Your task to perform on an android device: turn on airplane mode Image 0: 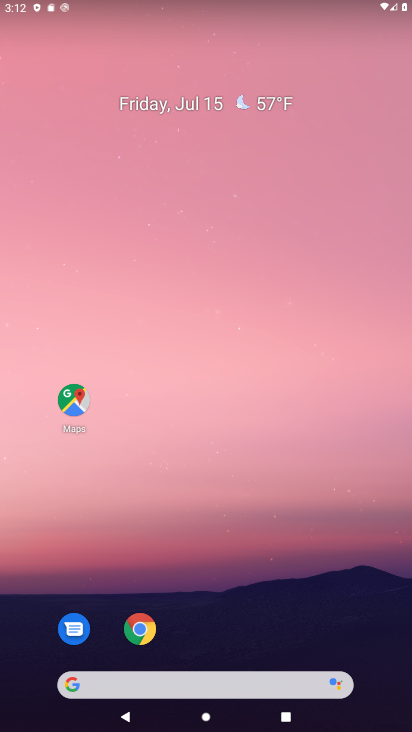
Step 0: drag from (319, 709) to (170, 76)
Your task to perform on an android device: turn on airplane mode Image 1: 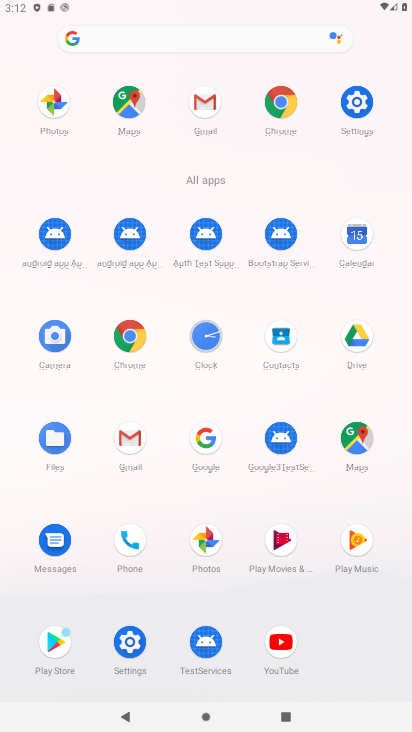
Step 1: click (358, 87)
Your task to perform on an android device: turn on airplane mode Image 2: 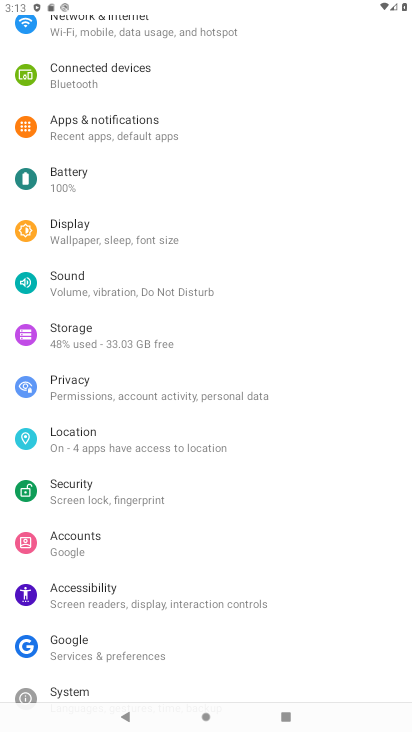
Step 2: drag from (136, 84) to (143, 437)
Your task to perform on an android device: turn on airplane mode Image 3: 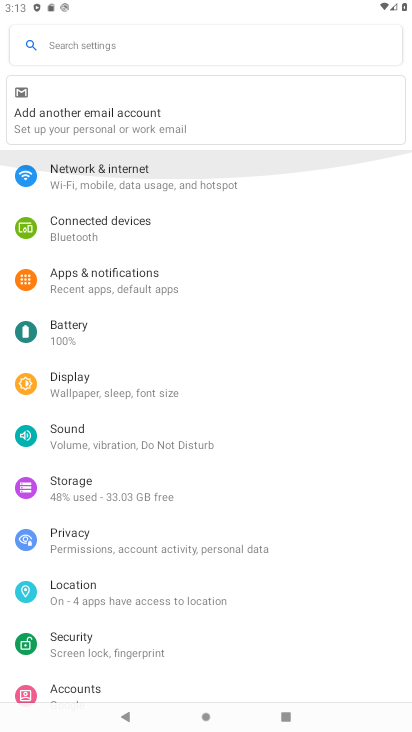
Step 3: drag from (154, 46) to (166, 438)
Your task to perform on an android device: turn on airplane mode Image 4: 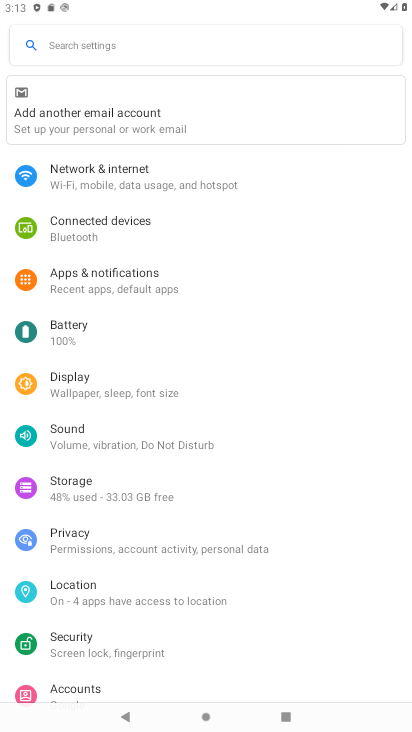
Step 4: drag from (181, 225) to (181, 441)
Your task to perform on an android device: turn on airplane mode Image 5: 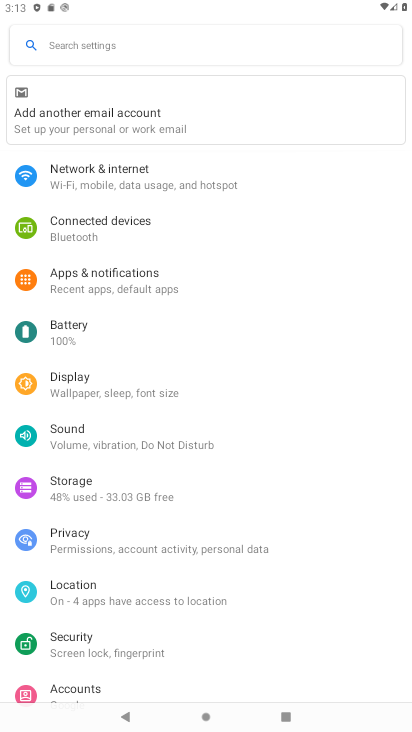
Step 5: click (132, 176)
Your task to perform on an android device: turn on airplane mode Image 6: 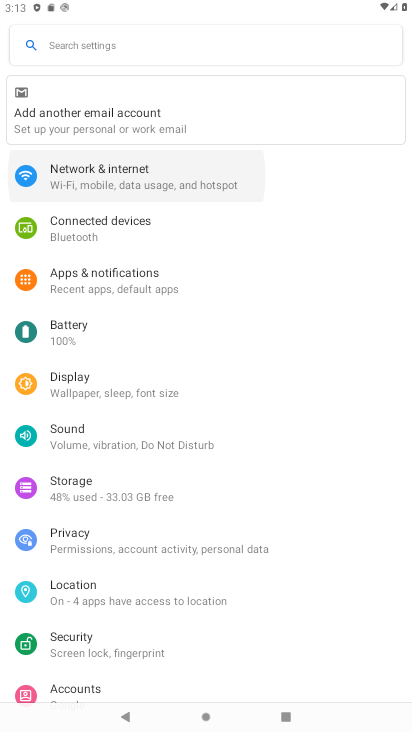
Step 6: click (130, 175)
Your task to perform on an android device: turn on airplane mode Image 7: 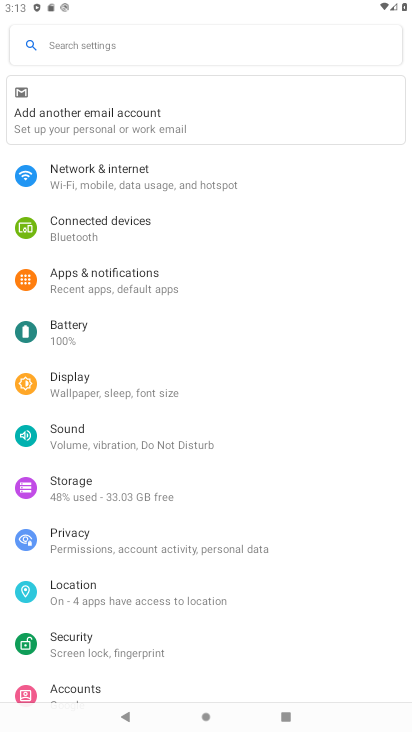
Step 7: click (130, 175)
Your task to perform on an android device: turn on airplane mode Image 8: 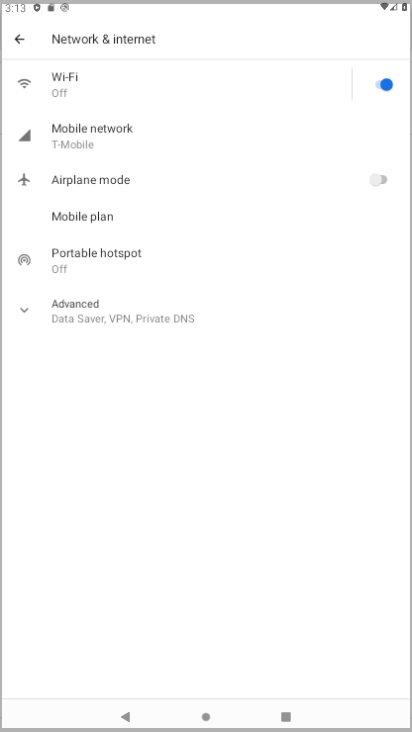
Step 8: click (130, 175)
Your task to perform on an android device: turn on airplane mode Image 9: 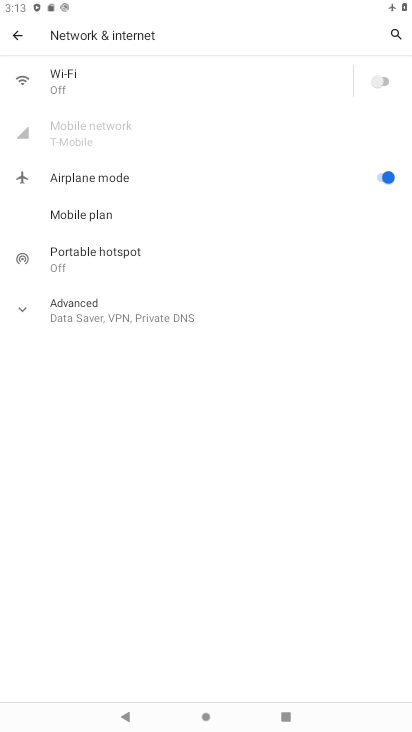
Step 9: task complete